Your task to perform on an android device: turn off translation in the chrome app Image 0: 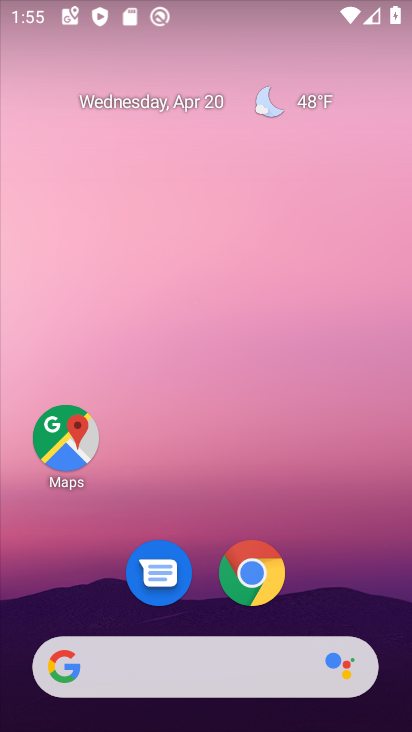
Step 0: drag from (168, 647) to (304, 157)
Your task to perform on an android device: turn off translation in the chrome app Image 1: 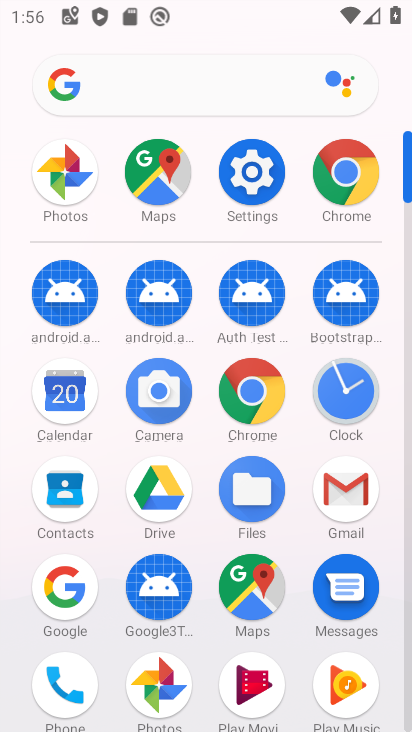
Step 1: click (336, 181)
Your task to perform on an android device: turn off translation in the chrome app Image 2: 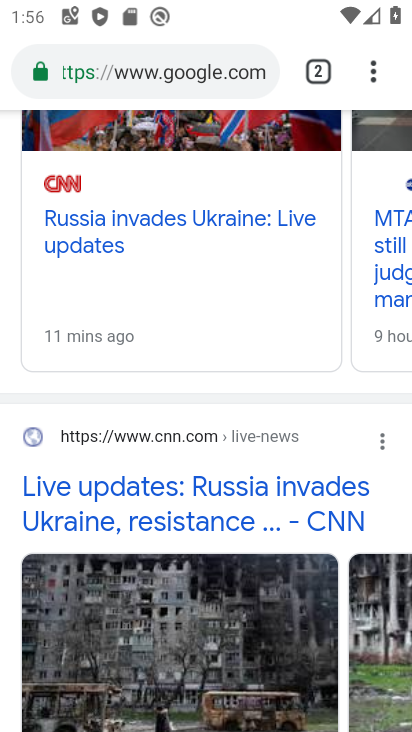
Step 2: click (372, 80)
Your task to perform on an android device: turn off translation in the chrome app Image 3: 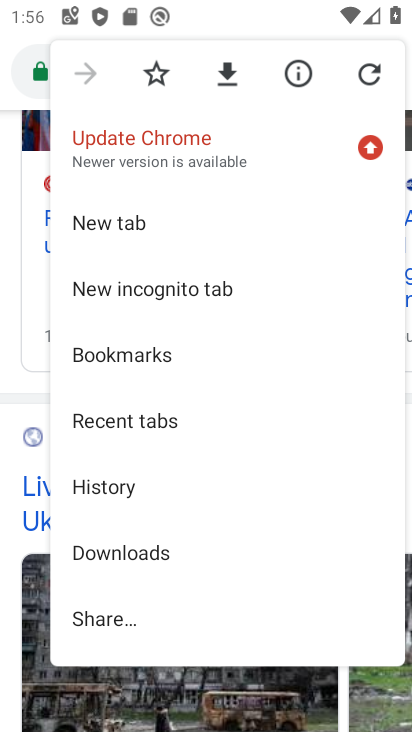
Step 3: drag from (196, 518) to (300, 130)
Your task to perform on an android device: turn off translation in the chrome app Image 4: 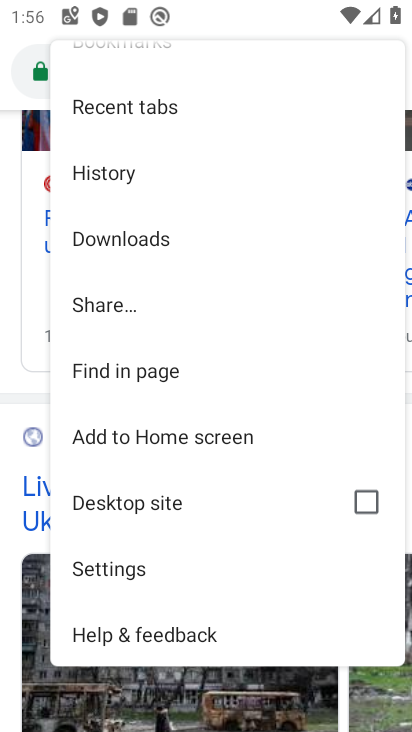
Step 4: click (116, 567)
Your task to perform on an android device: turn off translation in the chrome app Image 5: 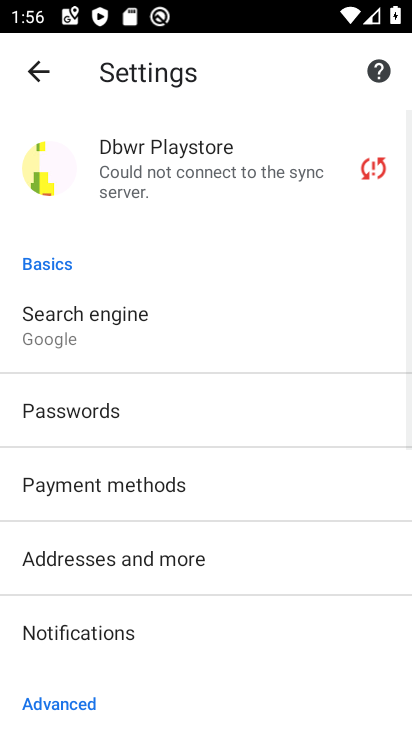
Step 5: drag from (185, 621) to (303, 154)
Your task to perform on an android device: turn off translation in the chrome app Image 6: 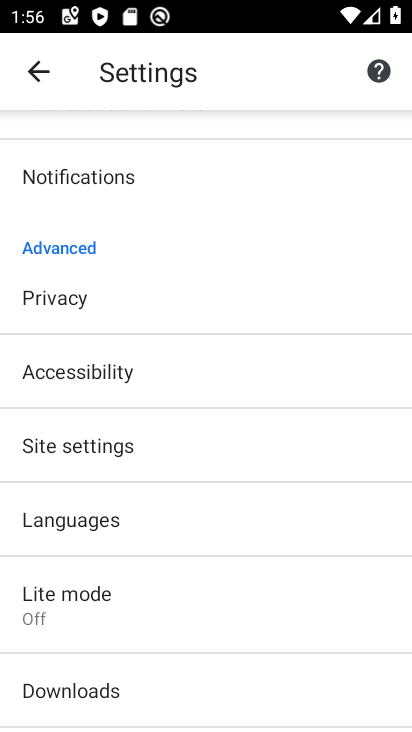
Step 6: click (100, 530)
Your task to perform on an android device: turn off translation in the chrome app Image 7: 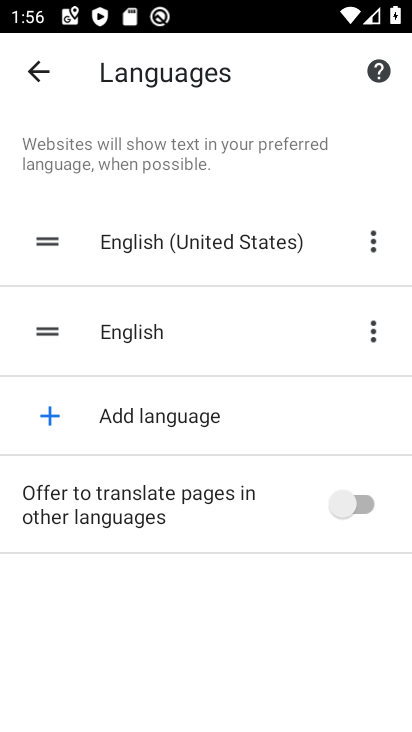
Step 7: task complete